Your task to perform on an android device: turn off sleep mode Image 0: 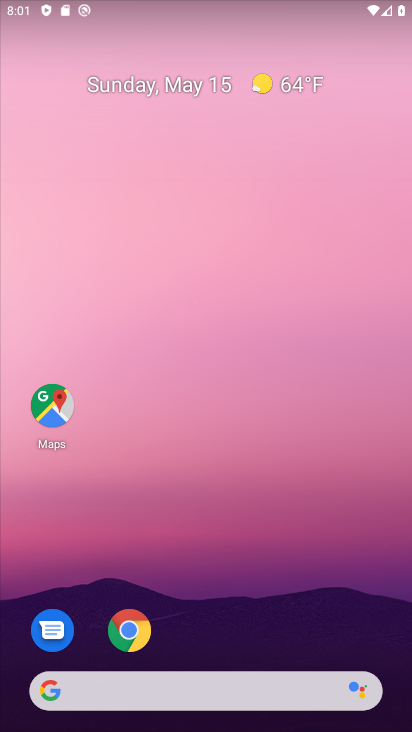
Step 0: drag from (343, 607) to (309, 1)
Your task to perform on an android device: turn off sleep mode Image 1: 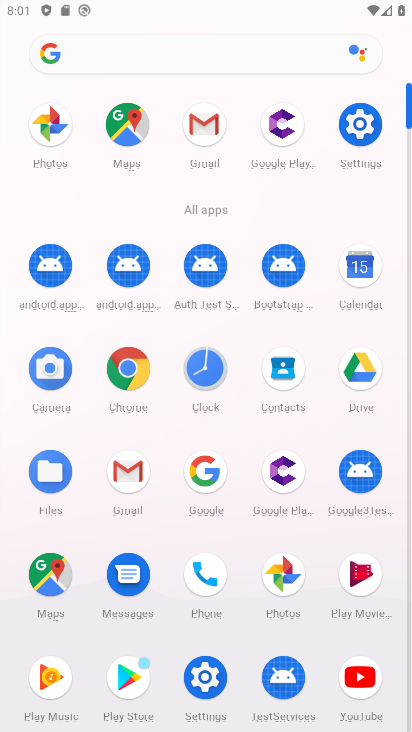
Step 1: click (374, 193)
Your task to perform on an android device: turn off sleep mode Image 2: 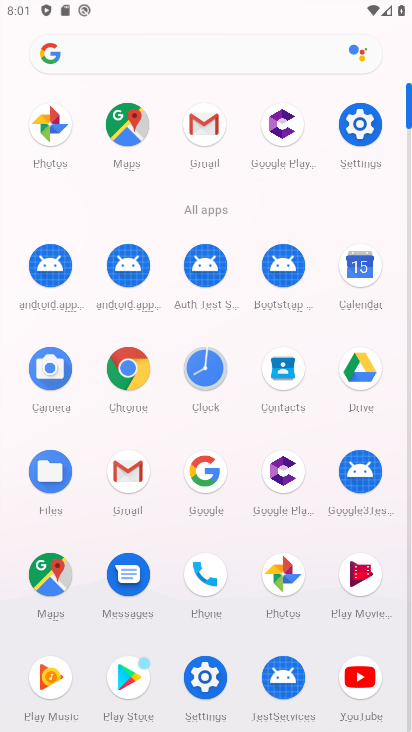
Step 2: click (343, 144)
Your task to perform on an android device: turn off sleep mode Image 3: 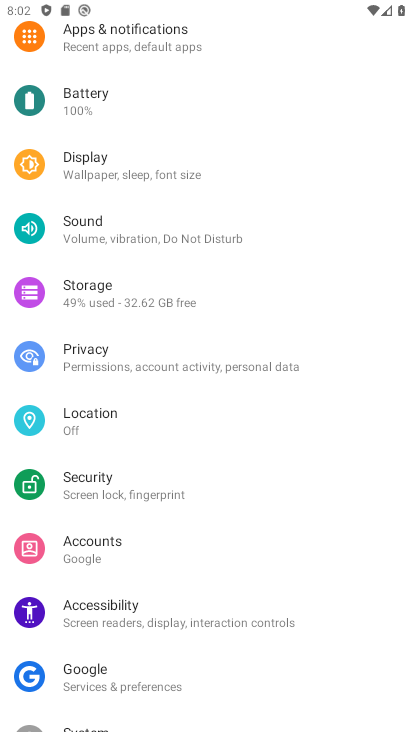
Step 3: click (130, 165)
Your task to perform on an android device: turn off sleep mode Image 4: 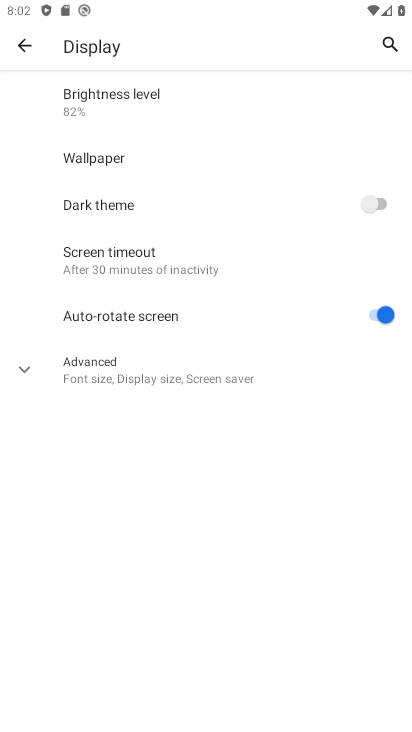
Step 4: click (128, 274)
Your task to perform on an android device: turn off sleep mode Image 5: 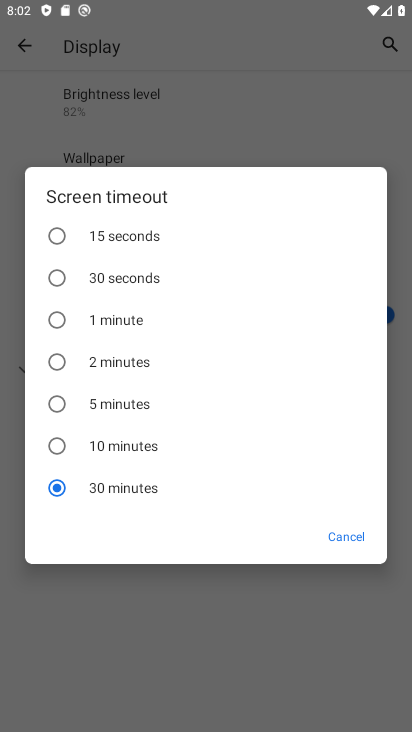
Step 5: task complete